Your task to perform on an android device: Clear the cart on walmart.com. Add "lenovo thinkpad" to the cart on walmart.com Image 0: 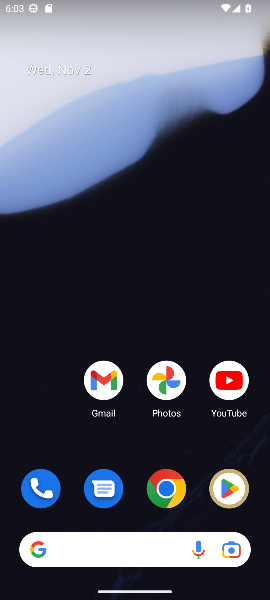
Step 0: click (38, 550)
Your task to perform on an android device: Clear the cart on walmart.com. Add "lenovo thinkpad" to the cart on walmart.com Image 1: 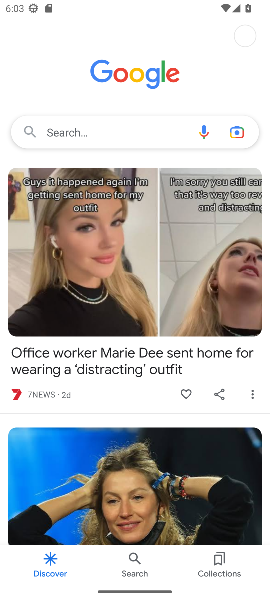
Step 1: click (76, 127)
Your task to perform on an android device: Clear the cart on walmart.com. Add "lenovo thinkpad" to the cart on walmart.com Image 2: 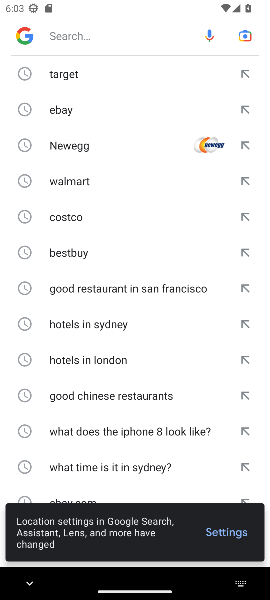
Step 2: click (64, 180)
Your task to perform on an android device: Clear the cart on walmart.com. Add "lenovo thinkpad" to the cart on walmart.com Image 3: 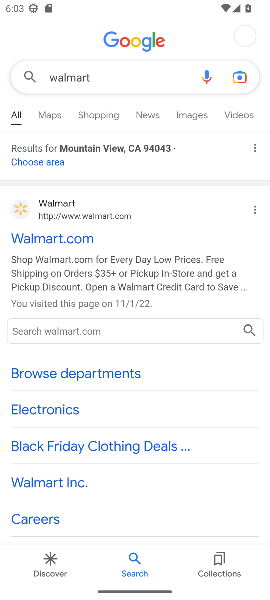
Step 3: click (34, 240)
Your task to perform on an android device: Clear the cart on walmart.com. Add "lenovo thinkpad" to the cart on walmart.com Image 4: 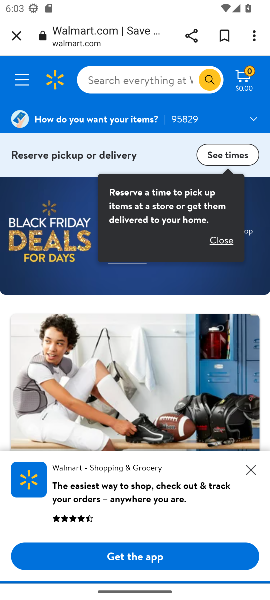
Step 4: click (140, 82)
Your task to perform on an android device: Clear the cart on walmart.com. Add "lenovo thinkpad" to the cart on walmart.com Image 5: 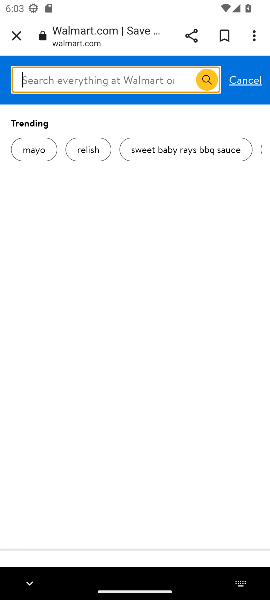
Step 5: type "lenovo thinkpad"
Your task to perform on an android device: Clear the cart on walmart.com. Add "lenovo thinkpad" to the cart on walmart.com Image 6: 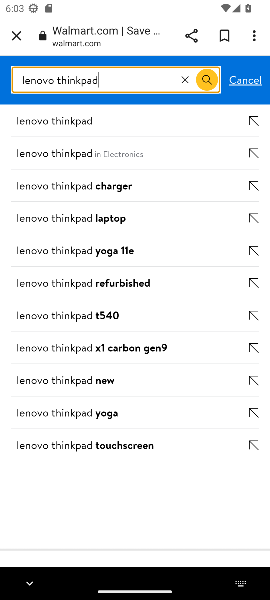
Step 6: click (79, 122)
Your task to perform on an android device: Clear the cart on walmart.com. Add "lenovo thinkpad" to the cart on walmart.com Image 7: 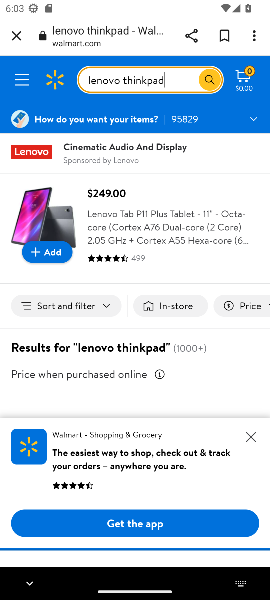
Step 7: drag from (196, 390) to (188, 173)
Your task to perform on an android device: Clear the cart on walmart.com. Add "lenovo thinkpad" to the cart on walmart.com Image 8: 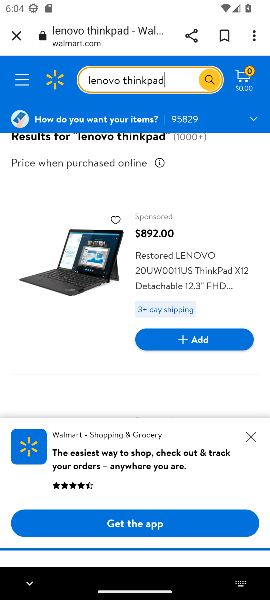
Step 8: click (193, 341)
Your task to perform on an android device: Clear the cart on walmart.com. Add "lenovo thinkpad" to the cart on walmart.com Image 9: 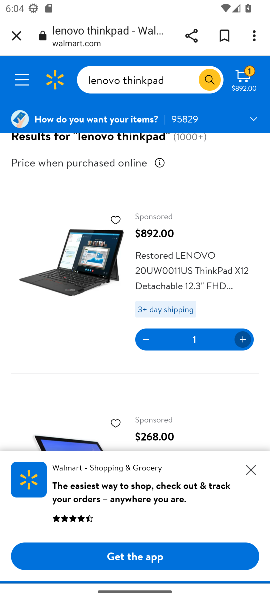
Step 9: click (244, 75)
Your task to perform on an android device: Clear the cart on walmart.com. Add "lenovo thinkpad" to the cart on walmart.com Image 10: 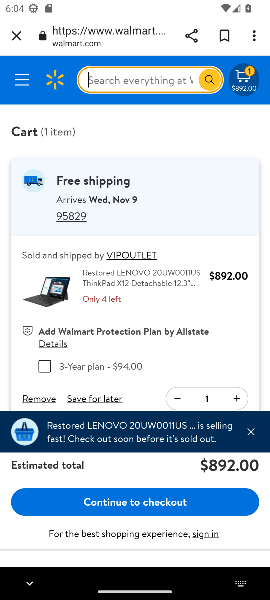
Step 10: task complete